Your task to perform on an android device: Clear the cart on amazon. Search for "macbook air" on amazon, select the first entry, add it to the cart, then select checkout. Image 0: 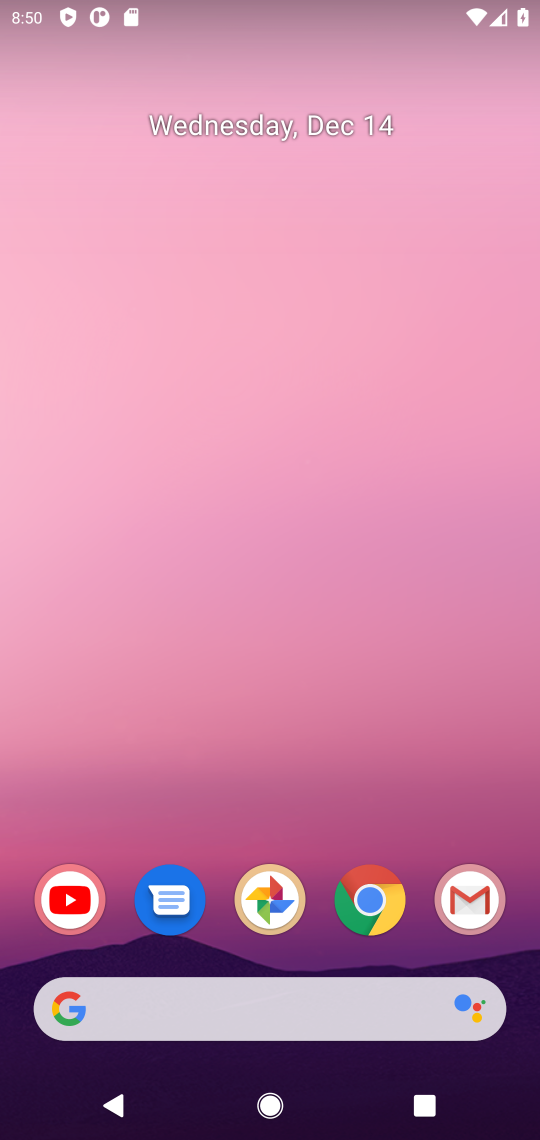
Step 0: click (239, 1008)
Your task to perform on an android device: Clear the cart on amazon. Search for "macbook air" on amazon, select the first entry, add it to the cart, then select checkout. Image 1: 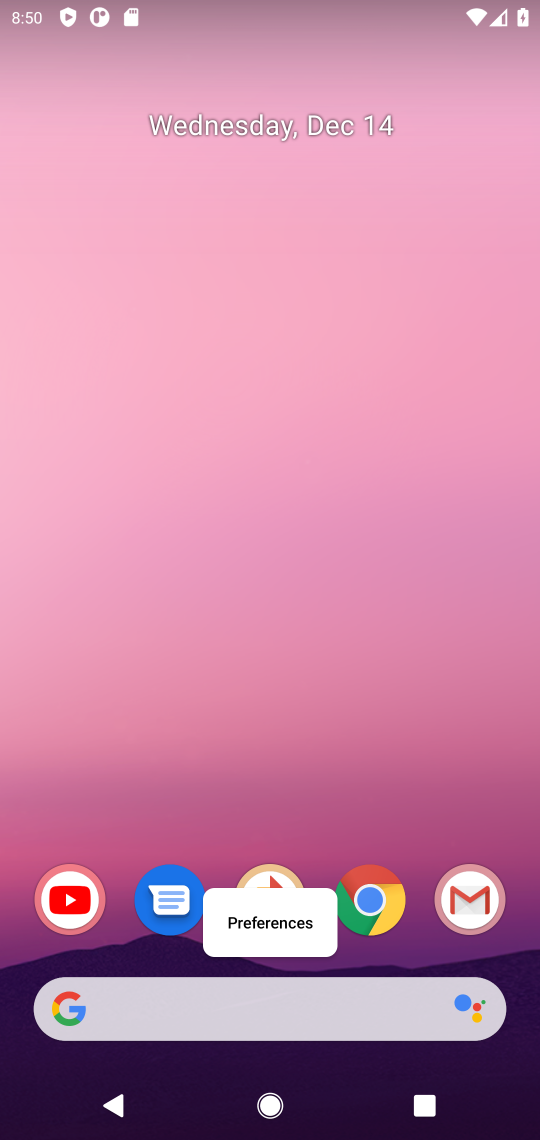
Step 1: click (296, 1013)
Your task to perform on an android device: Clear the cart on amazon. Search for "macbook air" on amazon, select the first entry, add it to the cart, then select checkout. Image 2: 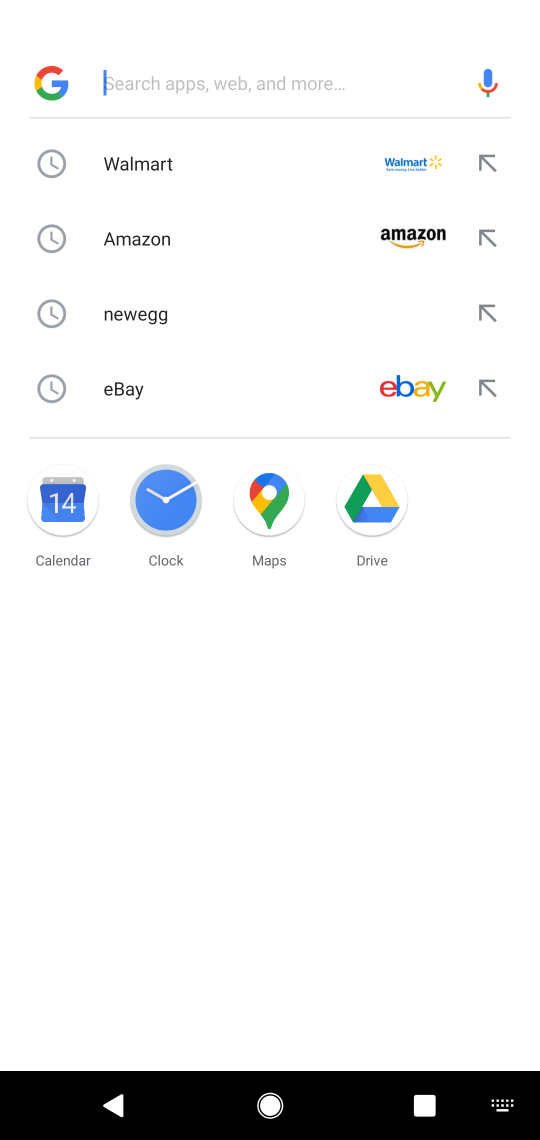
Step 2: click (155, 255)
Your task to perform on an android device: Clear the cart on amazon. Search for "macbook air" on amazon, select the first entry, add it to the cart, then select checkout. Image 3: 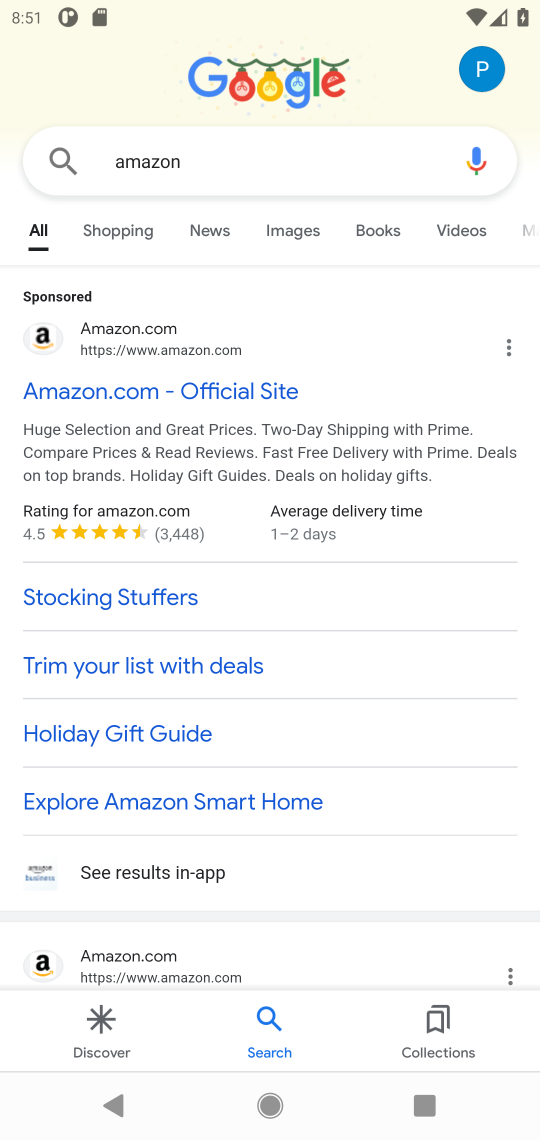
Step 3: click (139, 318)
Your task to perform on an android device: Clear the cart on amazon. Search for "macbook air" on amazon, select the first entry, add it to the cart, then select checkout. Image 4: 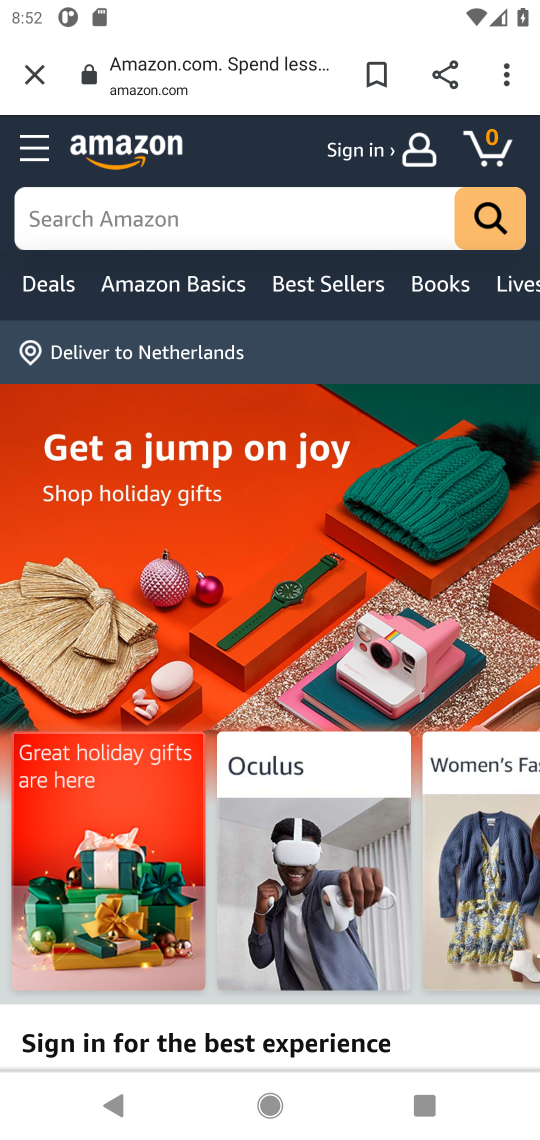
Step 4: click (158, 217)
Your task to perform on an android device: Clear the cart on amazon. Search for "macbook air" on amazon, select the first entry, add it to the cart, then select checkout. Image 5: 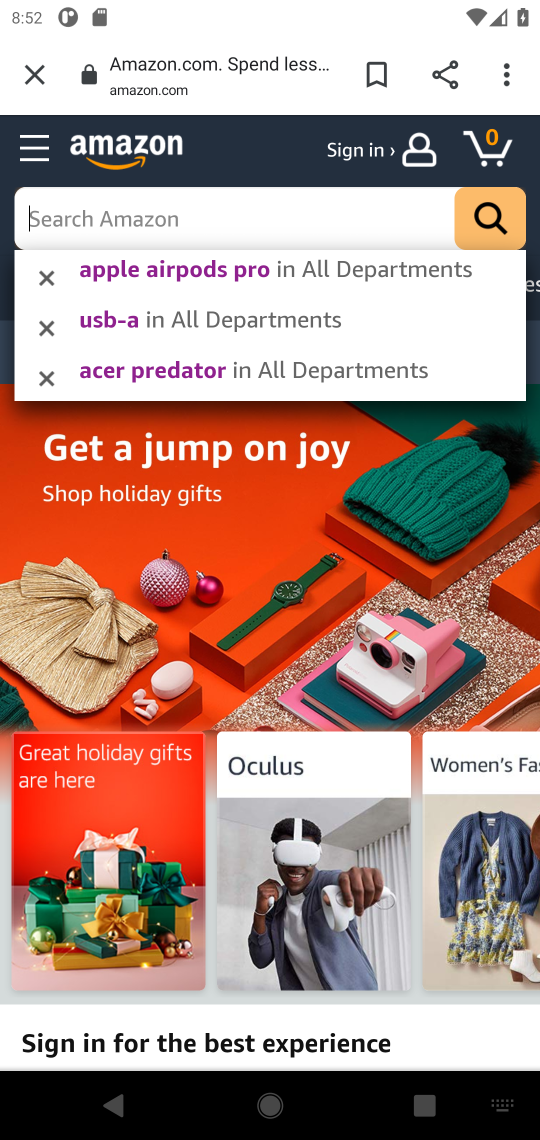
Step 5: type ""macbook air" "
Your task to perform on an android device: Clear the cart on amazon. Search for "macbook air" on amazon, select the first entry, add it to the cart, then select checkout. Image 6: 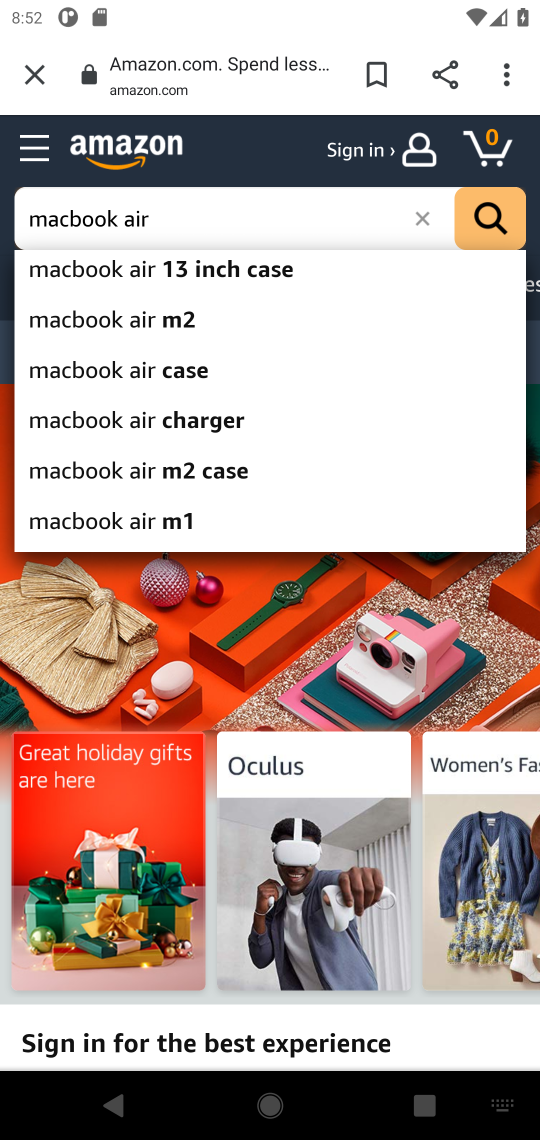
Step 6: click (496, 222)
Your task to perform on an android device: Clear the cart on amazon. Search for "macbook air" on amazon, select the first entry, add it to the cart, then select checkout. Image 7: 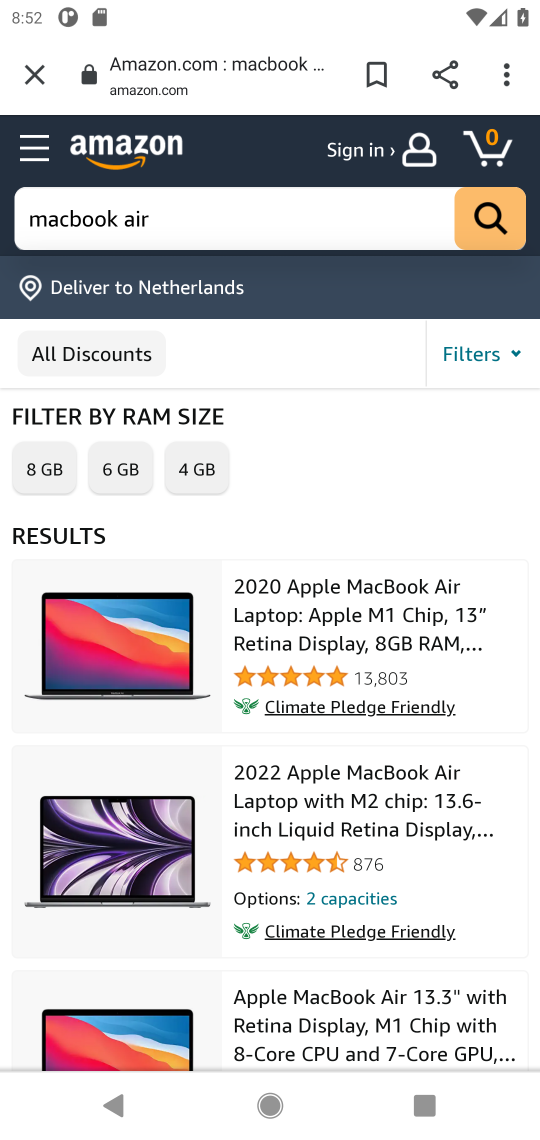
Step 7: click (310, 598)
Your task to perform on an android device: Clear the cart on amazon. Search for "macbook air" on amazon, select the first entry, add it to the cart, then select checkout. Image 8: 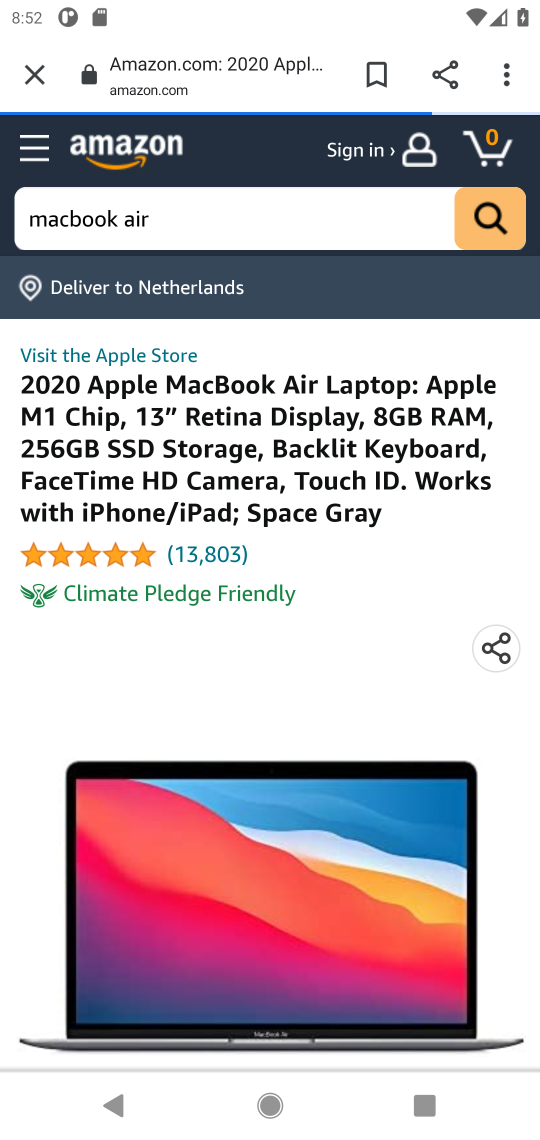
Step 8: task complete